Your task to perform on an android device: manage bookmarks in the chrome app Image 0: 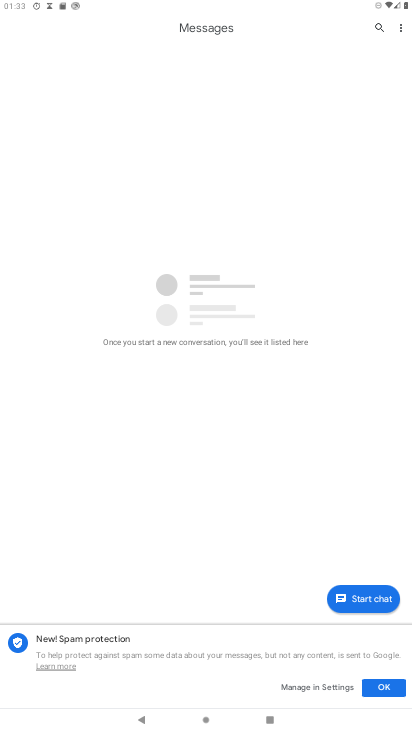
Step 0: press home button
Your task to perform on an android device: manage bookmarks in the chrome app Image 1: 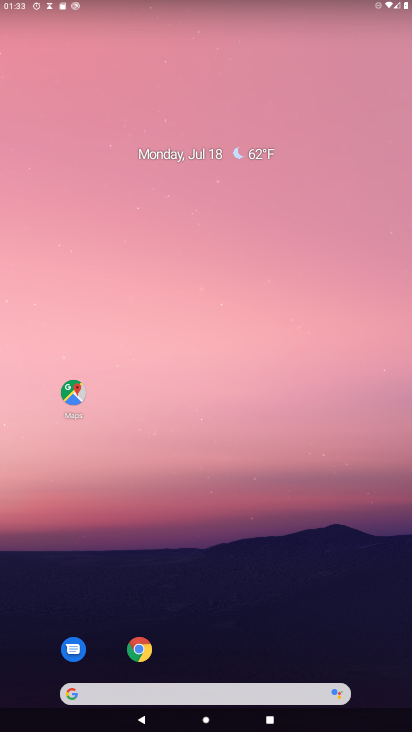
Step 1: click (132, 651)
Your task to perform on an android device: manage bookmarks in the chrome app Image 2: 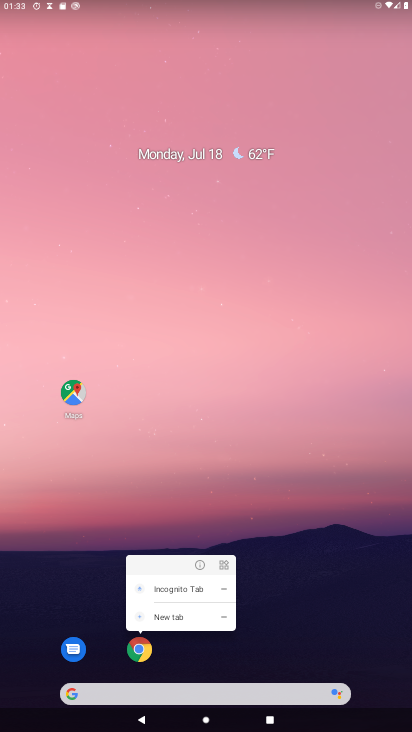
Step 2: click (134, 646)
Your task to perform on an android device: manage bookmarks in the chrome app Image 3: 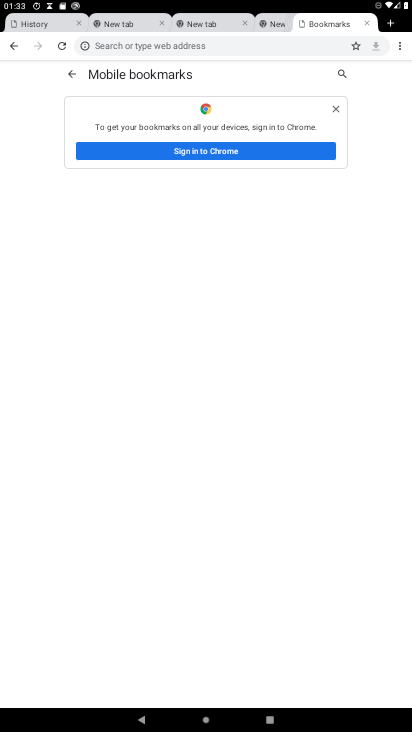
Step 3: click (339, 107)
Your task to perform on an android device: manage bookmarks in the chrome app Image 4: 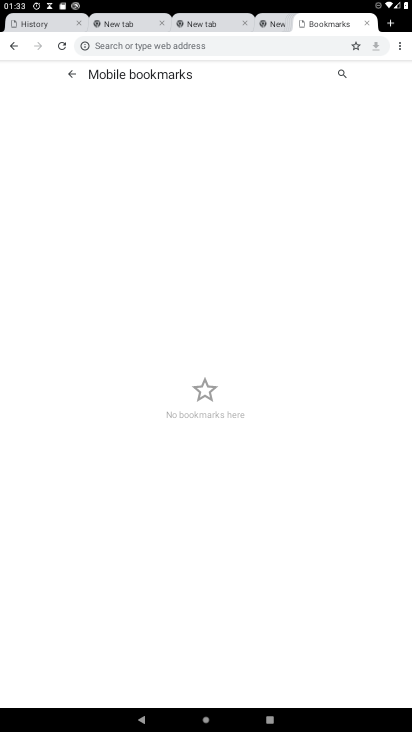
Step 4: task complete